Your task to perform on an android device: turn on location history Image 0: 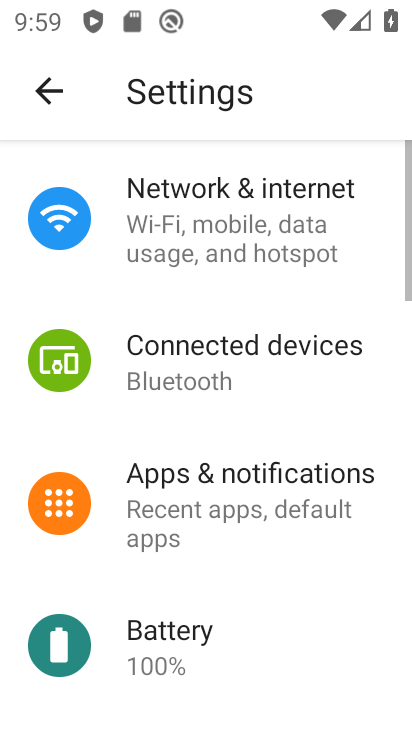
Step 0: drag from (235, 644) to (336, 232)
Your task to perform on an android device: turn on location history Image 1: 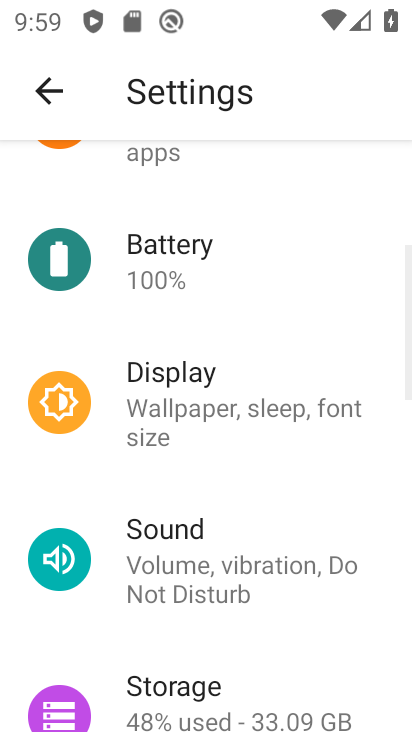
Step 1: drag from (278, 627) to (384, 94)
Your task to perform on an android device: turn on location history Image 2: 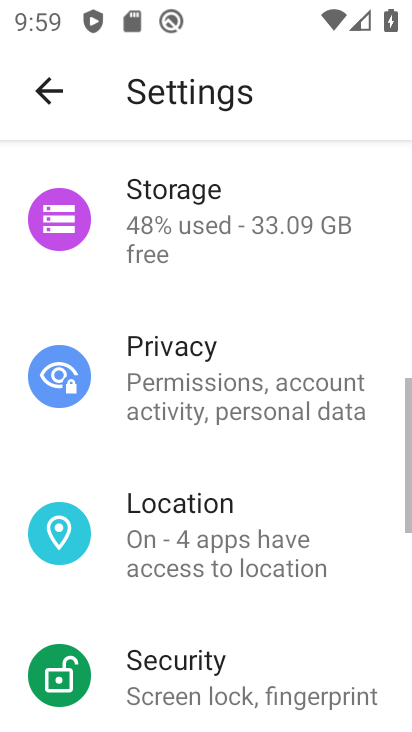
Step 2: click (290, 559)
Your task to perform on an android device: turn on location history Image 3: 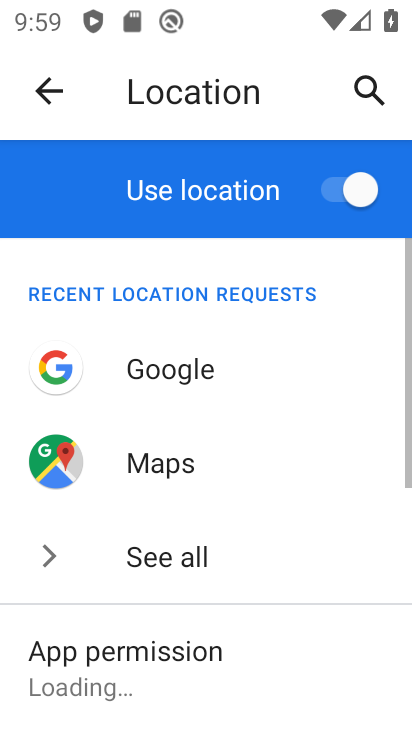
Step 3: drag from (198, 625) to (351, 222)
Your task to perform on an android device: turn on location history Image 4: 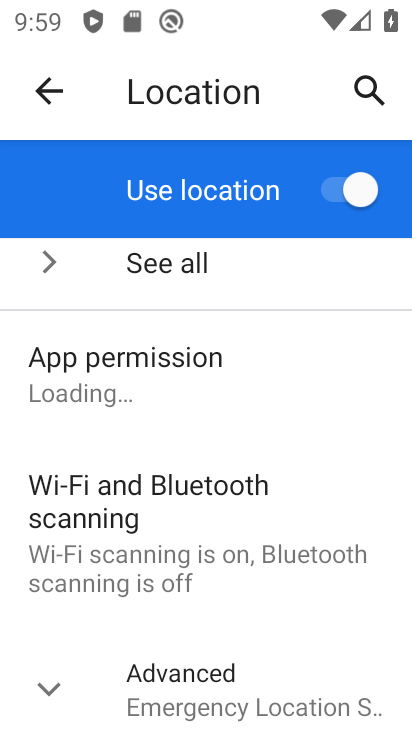
Step 4: click (203, 705)
Your task to perform on an android device: turn on location history Image 5: 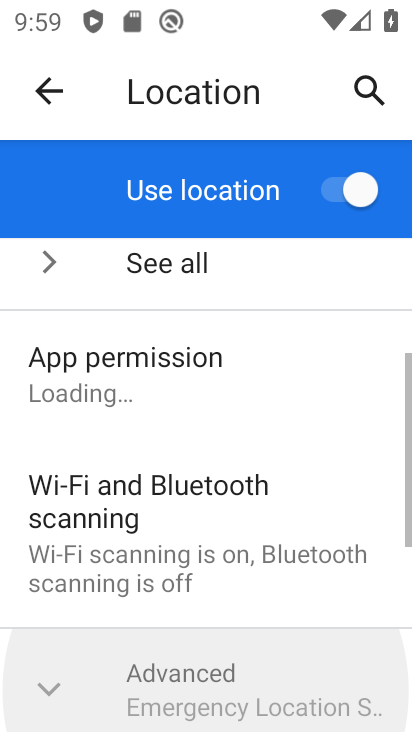
Step 5: drag from (200, 701) to (351, 218)
Your task to perform on an android device: turn on location history Image 6: 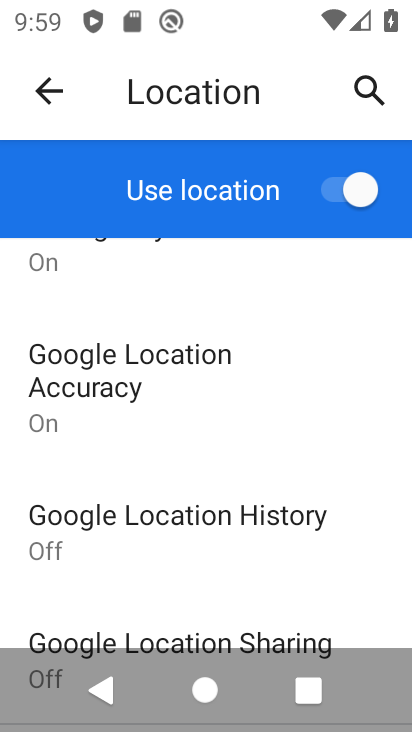
Step 6: click (253, 533)
Your task to perform on an android device: turn on location history Image 7: 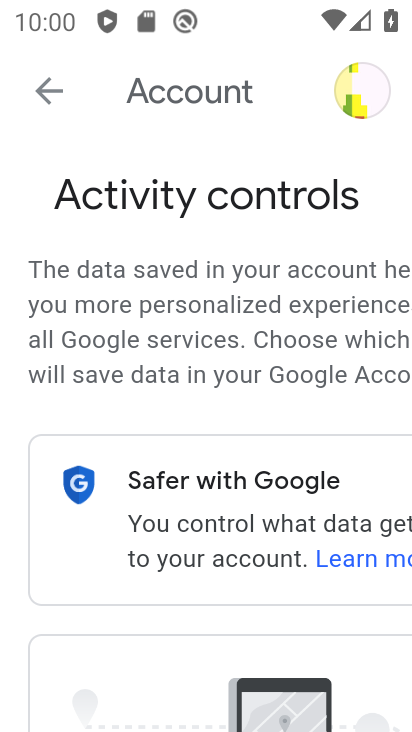
Step 7: drag from (229, 643) to (352, 170)
Your task to perform on an android device: turn on location history Image 8: 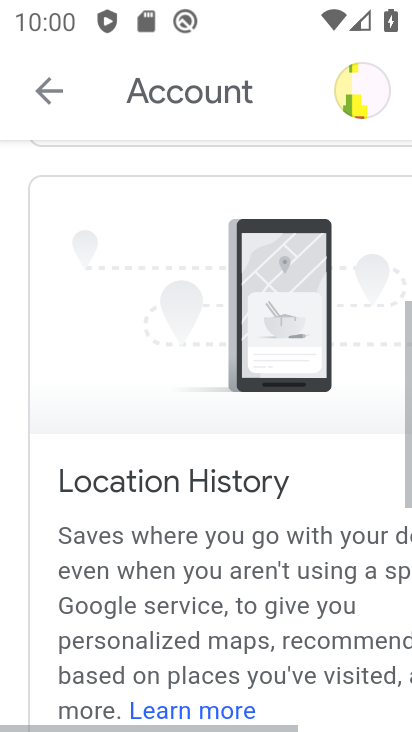
Step 8: drag from (194, 628) to (303, 233)
Your task to perform on an android device: turn on location history Image 9: 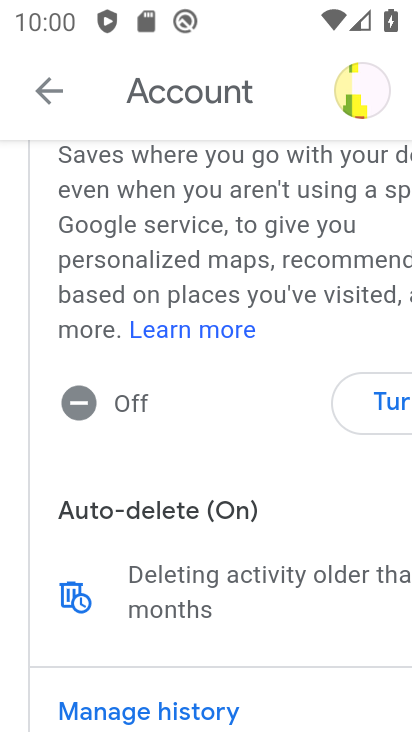
Step 9: click (384, 405)
Your task to perform on an android device: turn on location history Image 10: 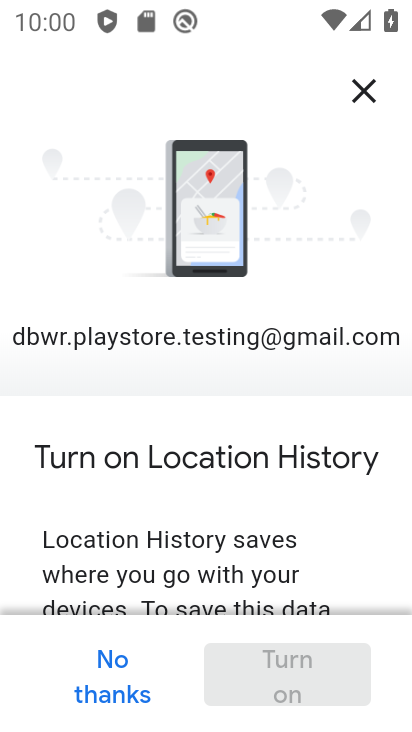
Step 10: drag from (144, 596) to (275, 145)
Your task to perform on an android device: turn on location history Image 11: 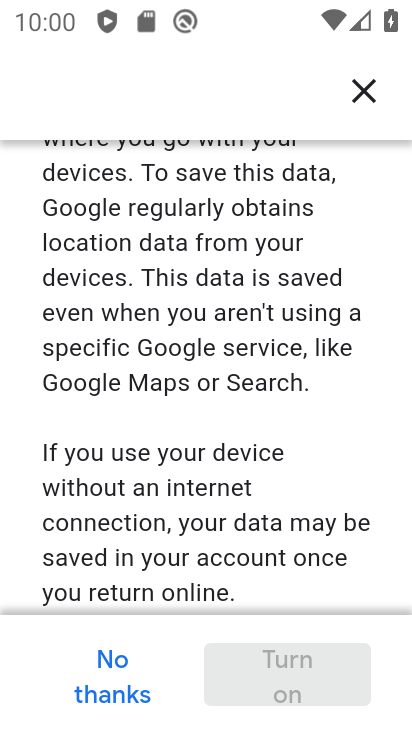
Step 11: drag from (255, 462) to (360, 80)
Your task to perform on an android device: turn on location history Image 12: 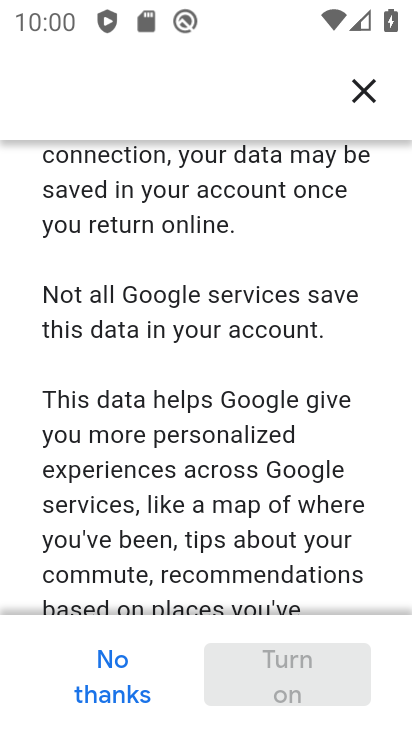
Step 12: drag from (283, 495) to (353, 101)
Your task to perform on an android device: turn on location history Image 13: 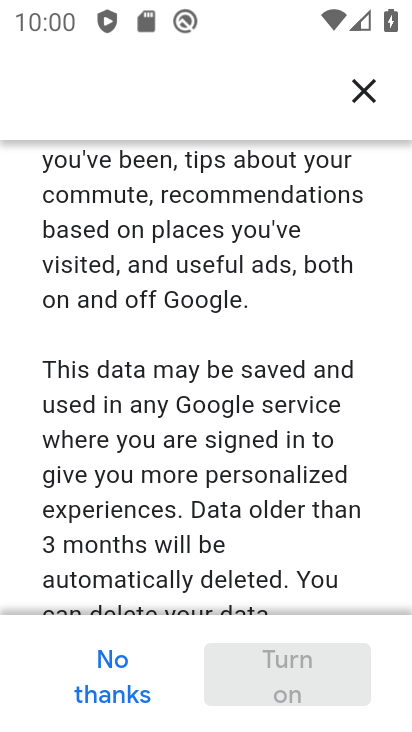
Step 13: drag from (296, 485) to (384, 126)
Your task to perform on an android device: turn on location history Image 14: 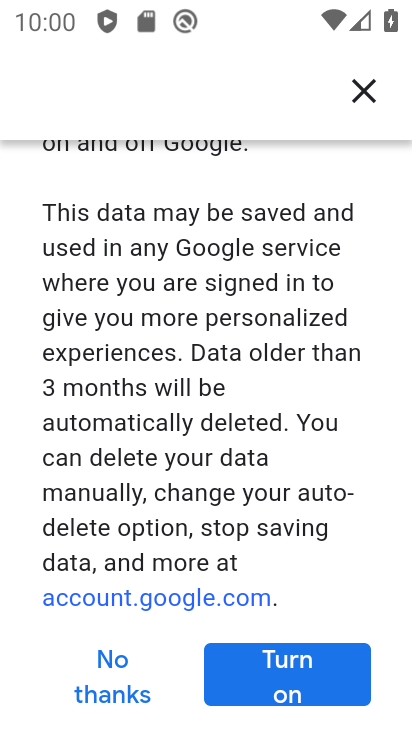
Step 14: click (319, 687)
Your task to perform on an android device: turn on location history Image 15: 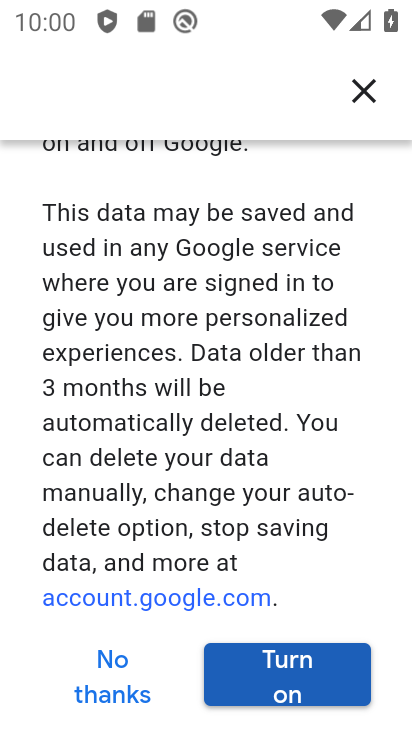
Step 15: click (319, 687)
Your task to perform on an android device: turn on location history Image 16: 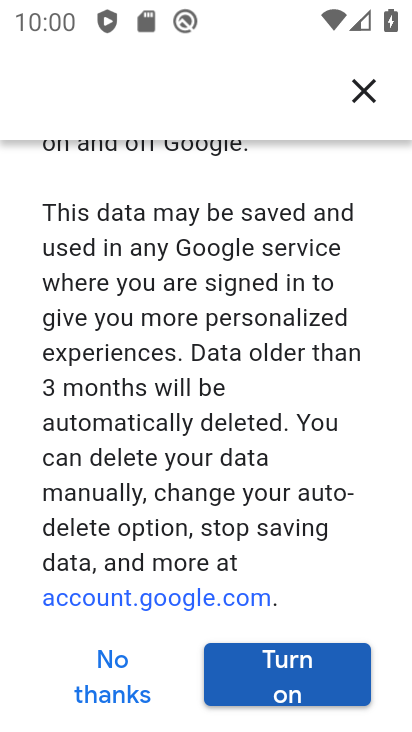
Step 16: click (320, 686)
Your task to perform on an android device: turn on location history Image 17: 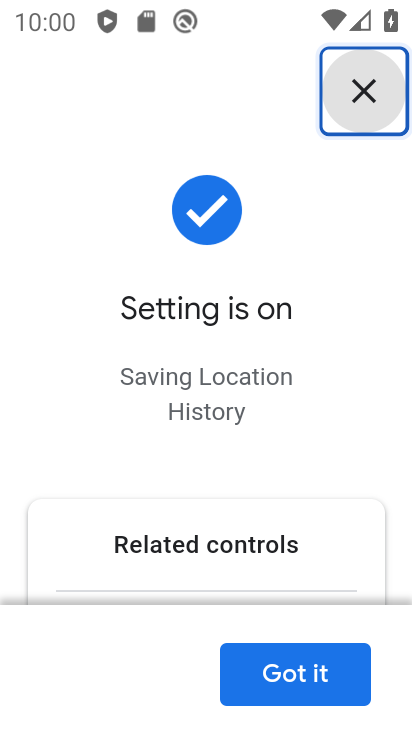
Step 17: click (315, 686)
Your task to perform on an android device: turn on location history Image 18: 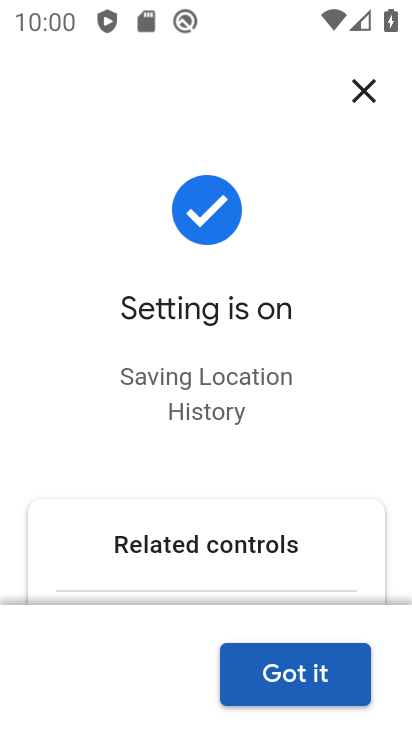
Step 18: click (307, 693)
Your task to perform on an android device: turn on location history Image 19: 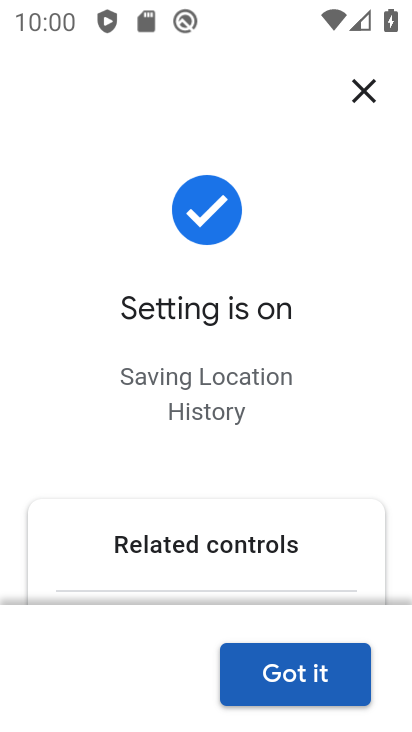
Step 19: click (303, 691)
Your task to perform on an android device: turn on location history Image 20: 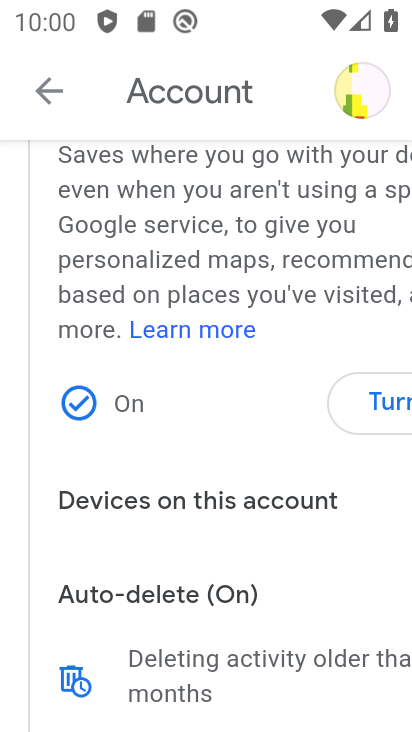
Step 20: task complete